Your task to perform on an android device: turn on showing notifications on the lock screen Image 0: 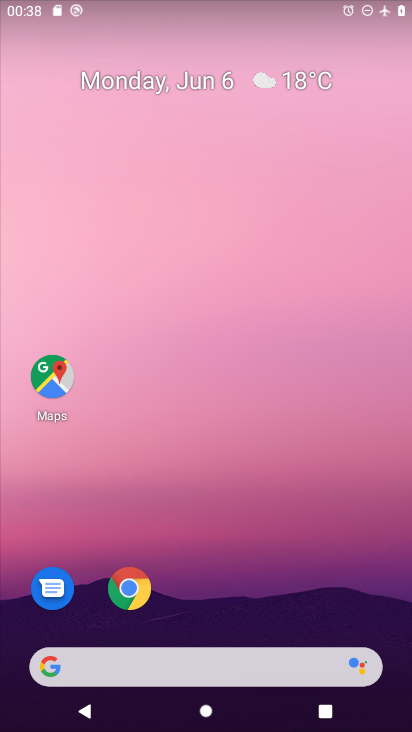
Step 0: drag from (280, 572) to (334, 207)
Your task to perform on an android device: turn on showing notifications on the lock screen Image 1: 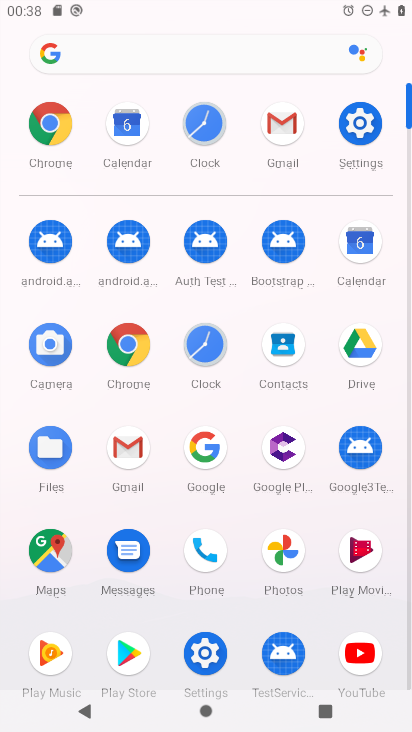
Step 1: click (351, 132)
Your task to perform on an android device: turn on showing notifications on the lock screen Image 2: 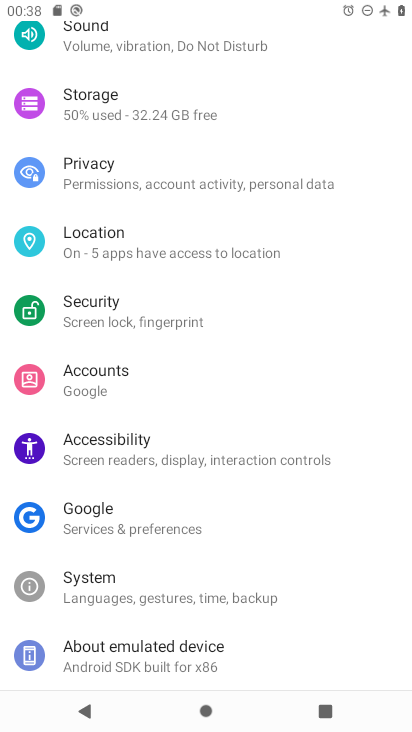
Step 2: drag from (360, 560) to (366, 455)
Your task to perform on an android device: turn on showing notifications on the lock screen Image 3: 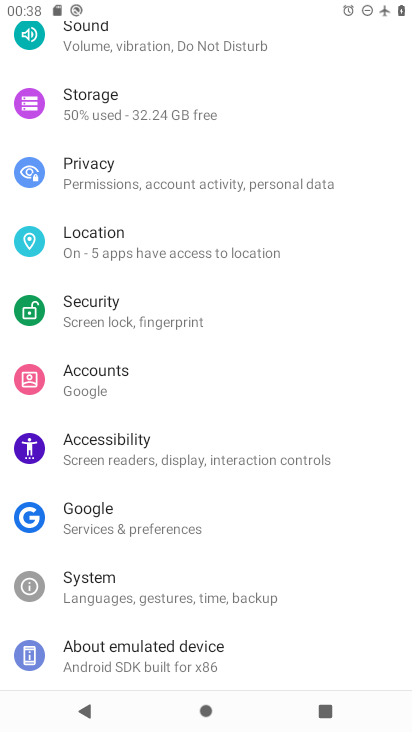
Step 3: drag from (351, 591) to (355, 427)
Your task to perform on an android device: turn on showing notifications on the lock screen Image 4: 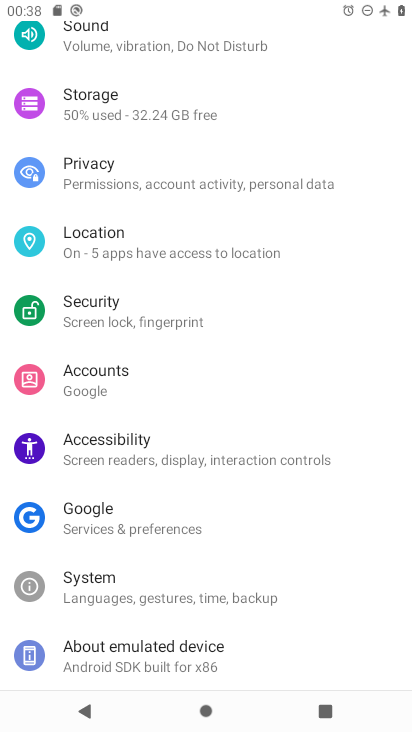
Step 4: drag from (349, 611) to (337, 434)
Your task to perform on an android device: turn on showing notifications on the lock screen Image 5: 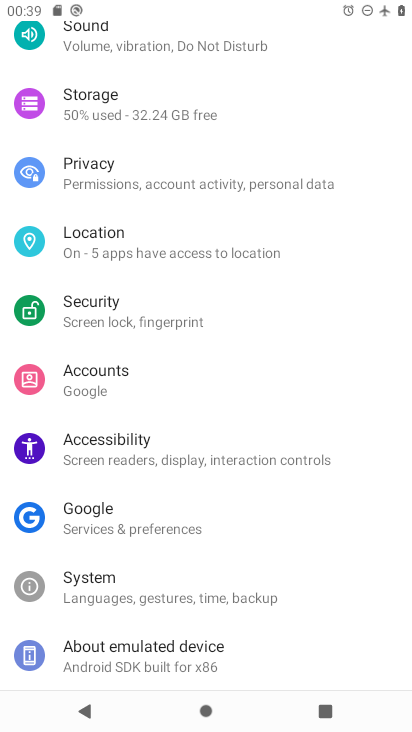
Step 5: drag from (329, 552) to (323, 429)
Your task to perform on an android device: turn on showing notifications on the lock screen Image 6: 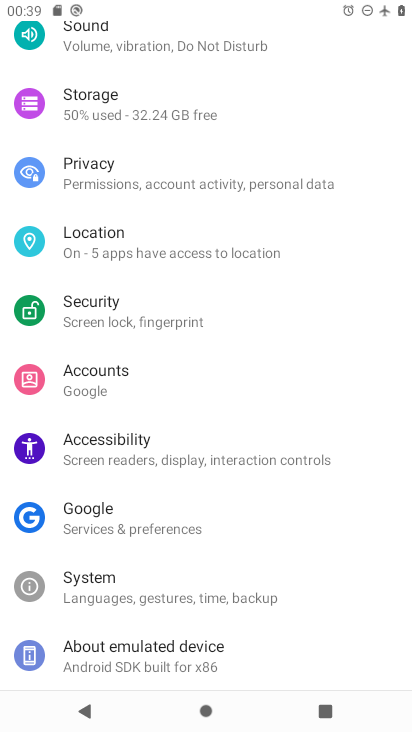
Step 6: drag from (328, 296) to (327, 503)
Your task to perform on an android device: turn on showing notifications on the lock screen Image 7: 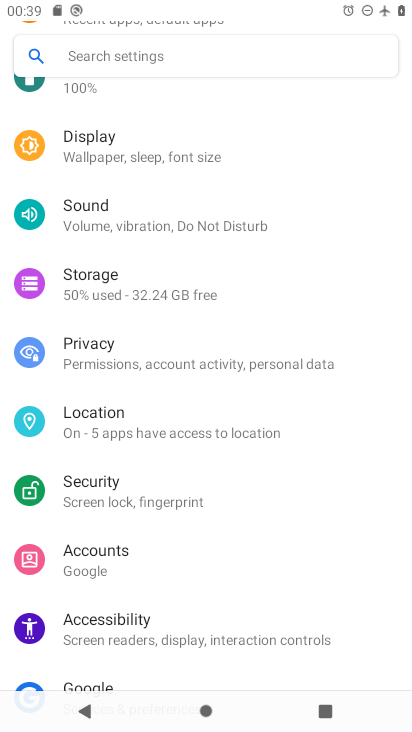
Step 7: drag from (330, 288) to (338, 415)
Your task to perform on an android device: turn on showing notifications on the lock screen Image 8: 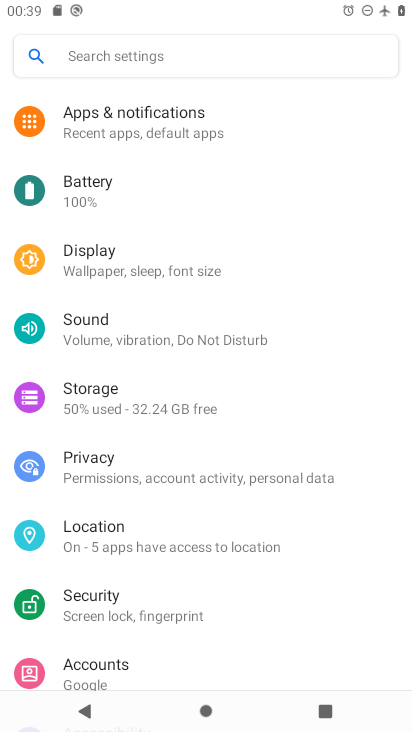
Step 8: click (284, 200)
Your task to perform on an android device: turn on showing notifications on the lock screen Image 9: 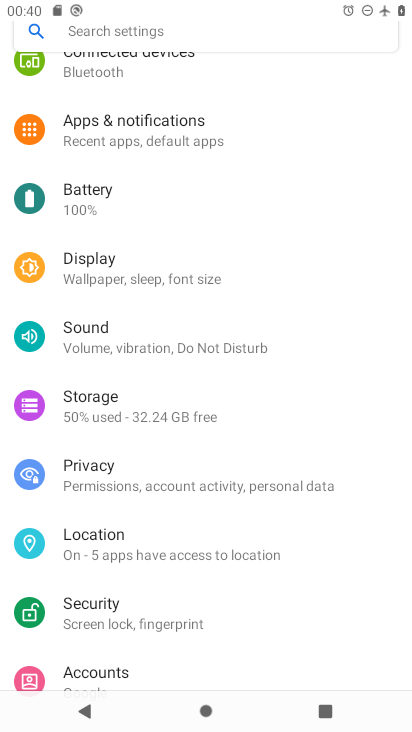
Step 9: click (147, 142)
Your task to perform on an android device: turn on showing notifications on the lock screen Image 10: 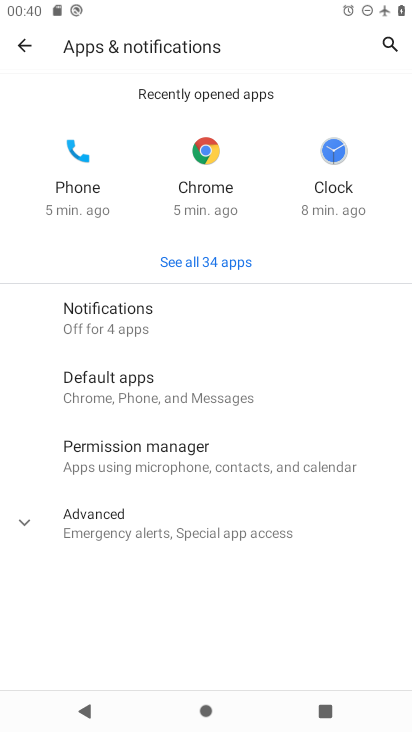
Step 10: click (140, 321)
Your task to perform on an android device: turn on showing notifications on the lock screen Image 11: 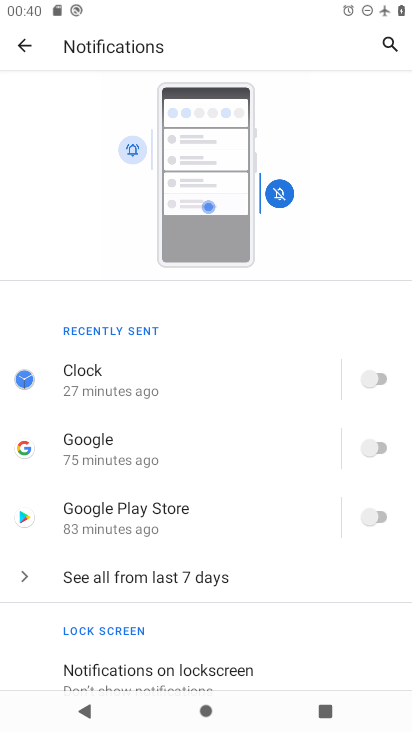
Step 11: drag from (251, 611) to (268, 513)
Your task to perform on an android device: turn on showing notifications on the lock screen Image 12: 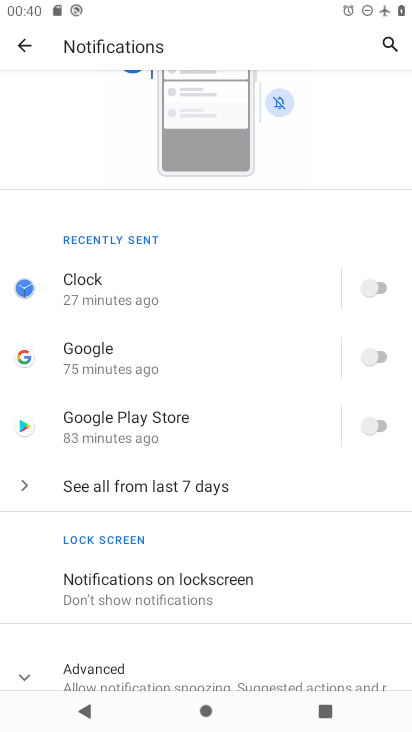
Step 12: click (240, 616)
Your task to perform on an android device: turn on showing notifications on the lock screen Image 13: 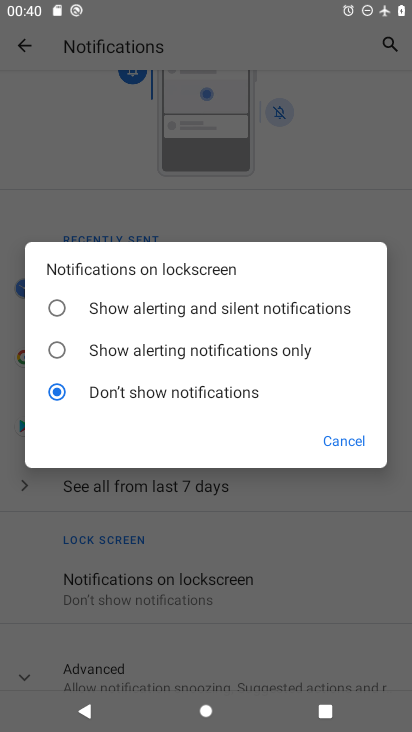
Step 13: click (137, 298)
Your task to perform on an android device: turn on showing notifications on the lock screen Image 14: 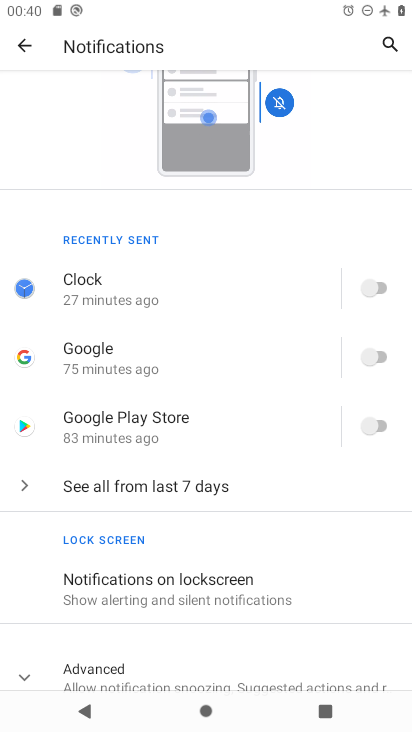
Step 14: task complete